Your task to perform on an android device: Show me the alarms in the clock app Image 0: 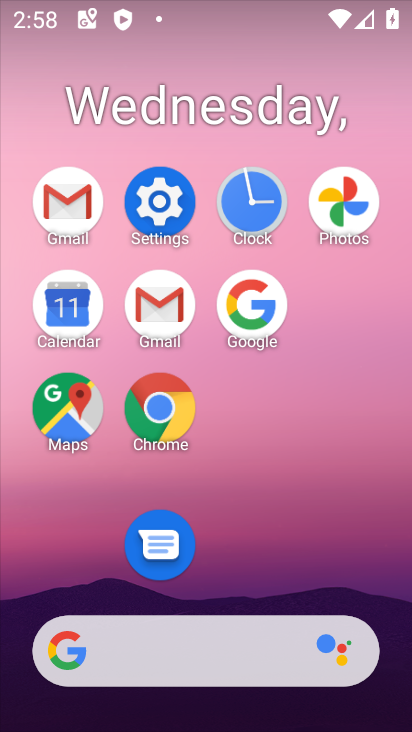
Step 0: click (240, 206)
Your task to perform on an android device: Show me the alarms in the clock app Image 1: 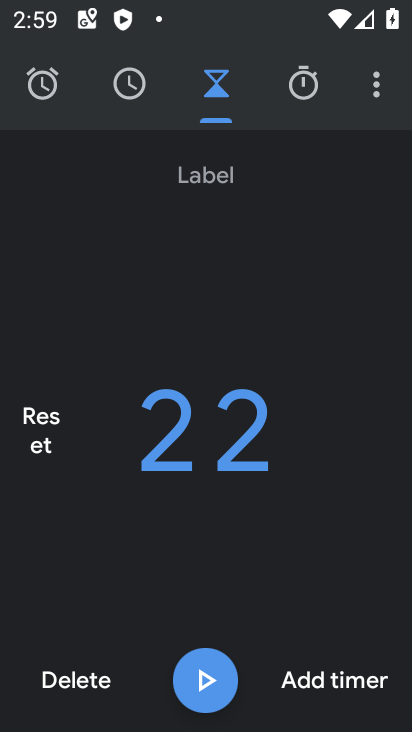
Step 1: click (53, 84)
Your task to perform on an android device: Show me the alarms in the clock app Image 2: 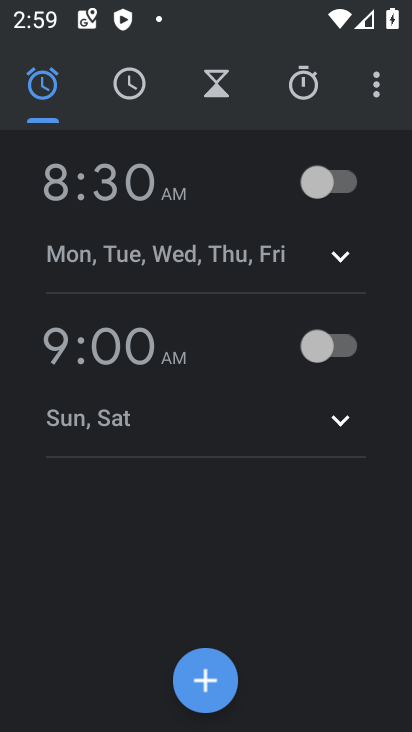
Step 2: task complete